Your task to perform on an android device: Show me some nice wallpapers for my computer Image 0: 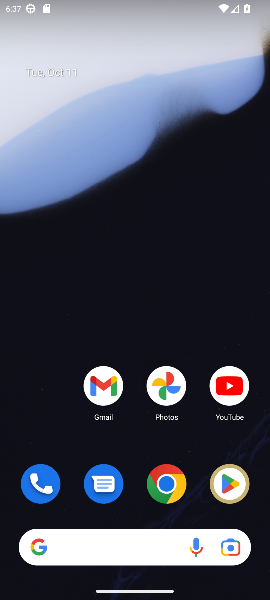
Step 0: drag from (126, 551) to (108, 54)
Your task to perform on an android device: Show me some nice wallpapers for my computer Image 1: 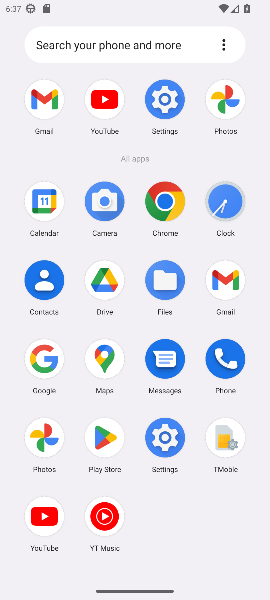
Step 1: click (166, 99)
Your task to perform on an android device: Show me some nice wallpapers for my computer Image 2: 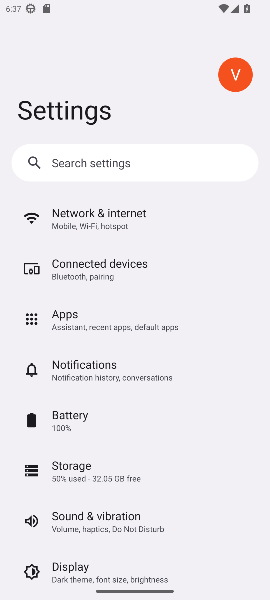
Step 2: drag from (103, 540) to (122, 387)
Your task to perform on an android device: Show me some nice wallpapers for my computer Image 3: 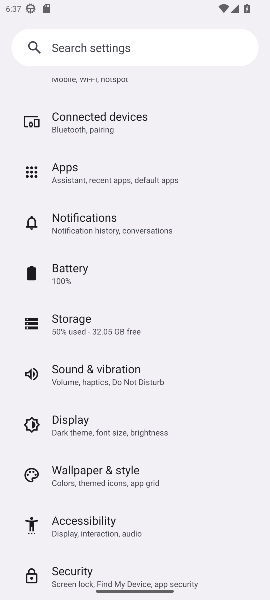
Step 3: click (95, 470)
Your task to perform on an android device: Show me some nice wallpapers for my computer Image 4: 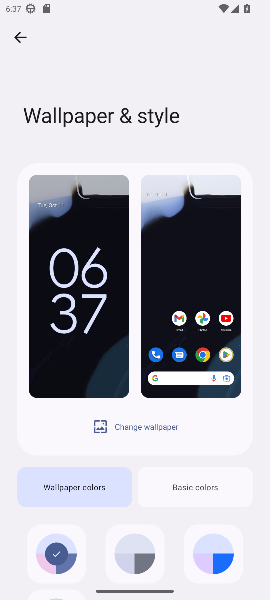
Step 4: task complete